Your task to perform on an android device: Add dell xps to the cart on target Image 0: 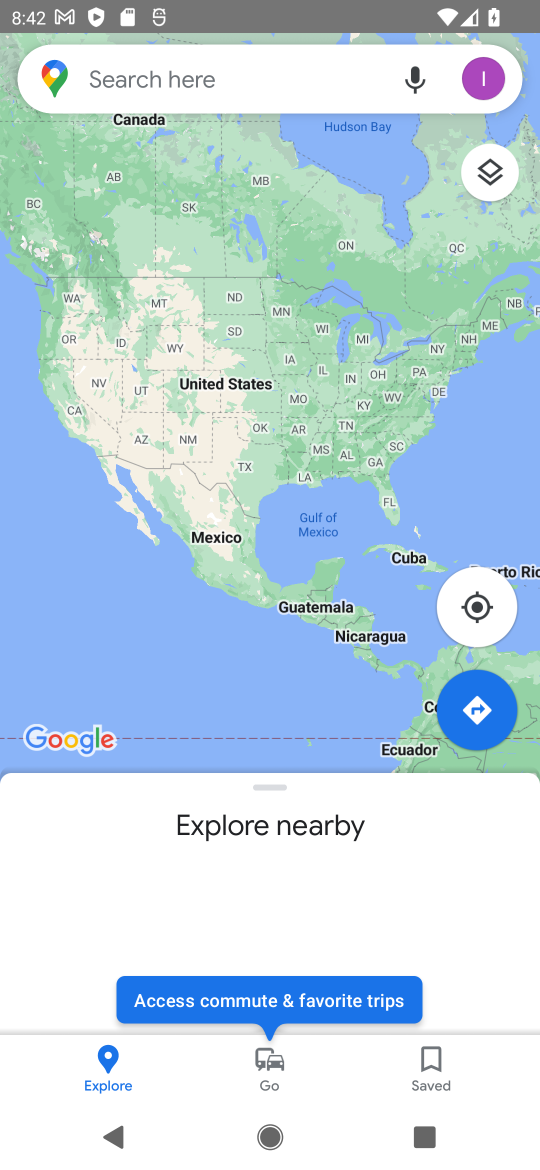
Step 0: press home button
Your task to perform on an android device: Add dell xps to the cart on target Image 1: 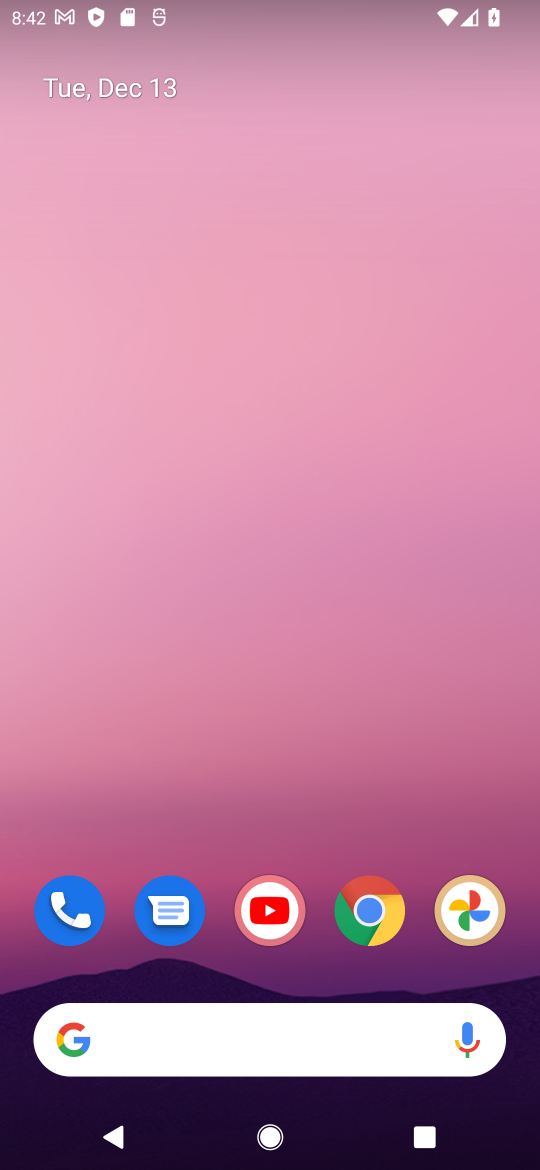
Step 1: drag from (223, 846) to (223, 288)
Your task to perform on an android device: Add dell xps to the cart on target Image 2: 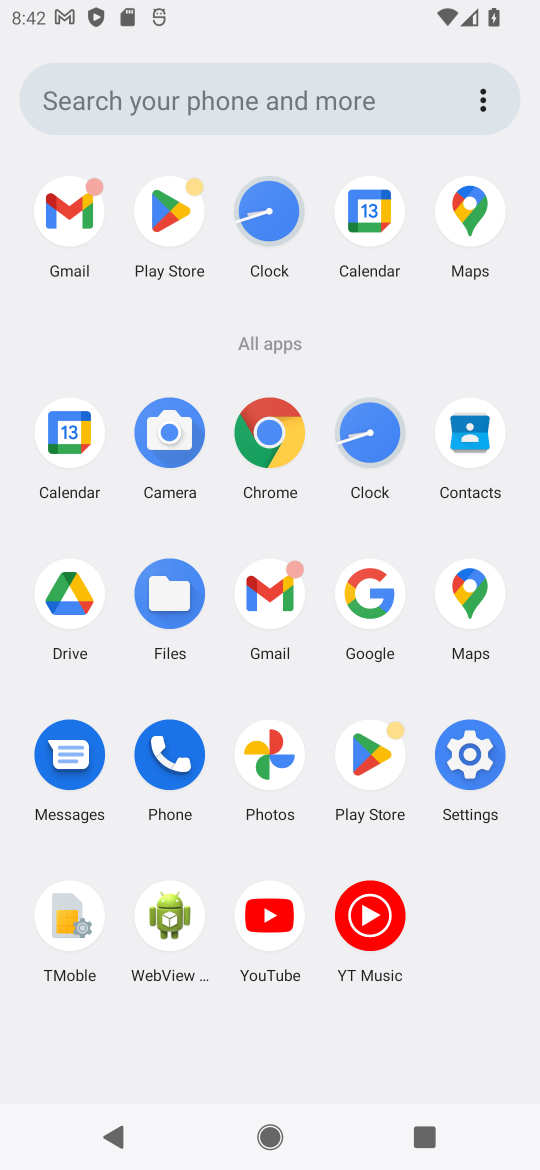
Step 2: click (374, 581)
Your task to perform on an android device: Add dell xps to the cart on target Image 3: 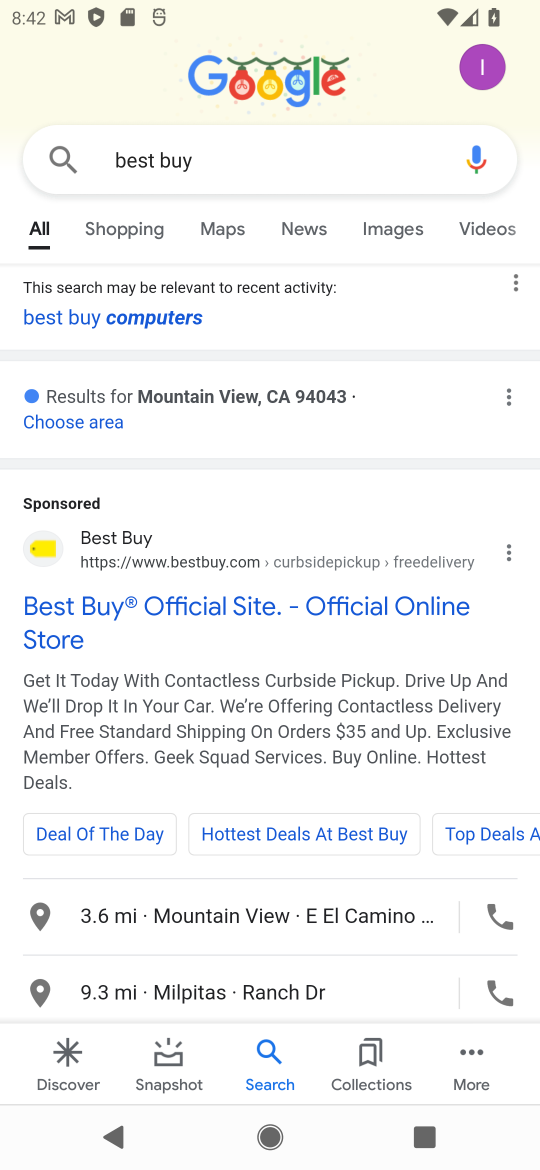
Step 3: click (141, 157)
Your task to perform on an android device: Add dell xps to the cart on target Image 4: 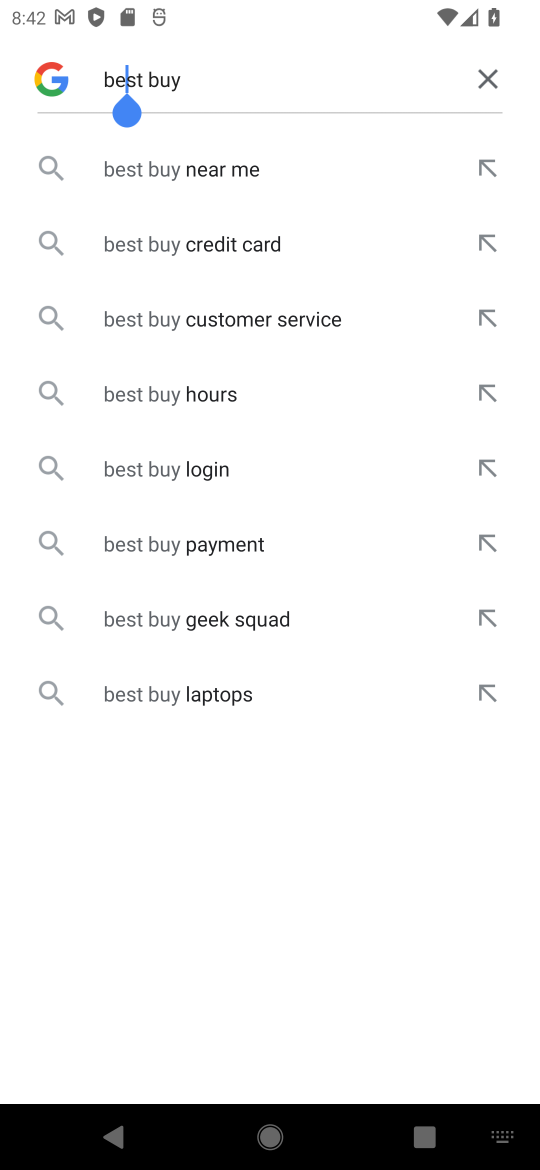
Step 4: click (491, 76)
Your task to perform on an android device: Add dell xps to the cart on target Image 5: 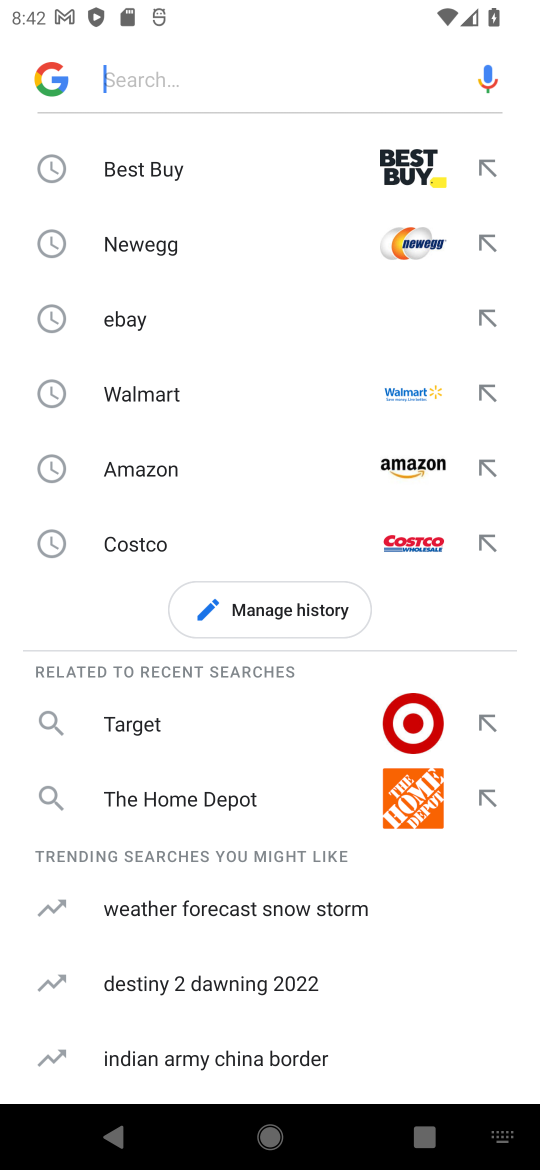
Step 5: click (165, 724)
Your task to perform on an android device: Add dell xps to the cart on target Image 6: 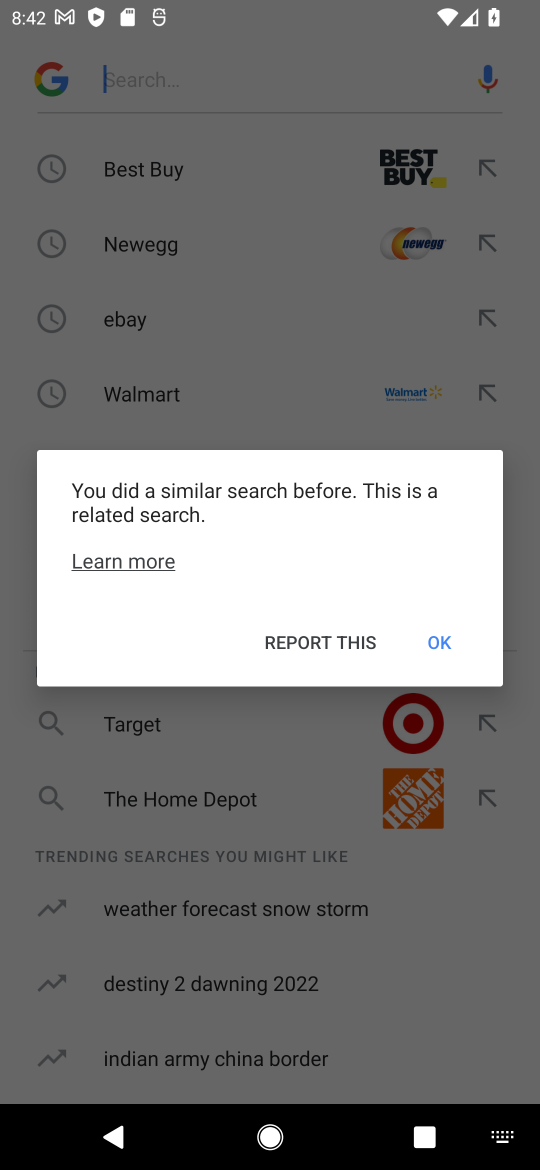
Step 6: click (432, 652)
Your task to perform on an android device: Add dell xps to the cart on target Image 7: 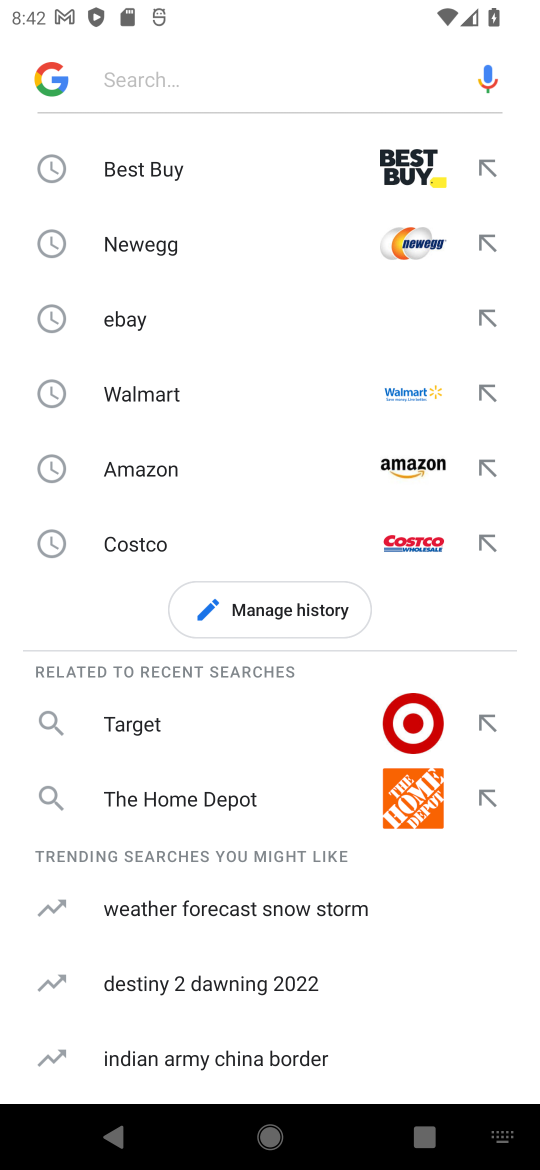
Step 7: click (143, 727)
Your task to perform on an android device: Add dell xps to the cart on target Image 8: 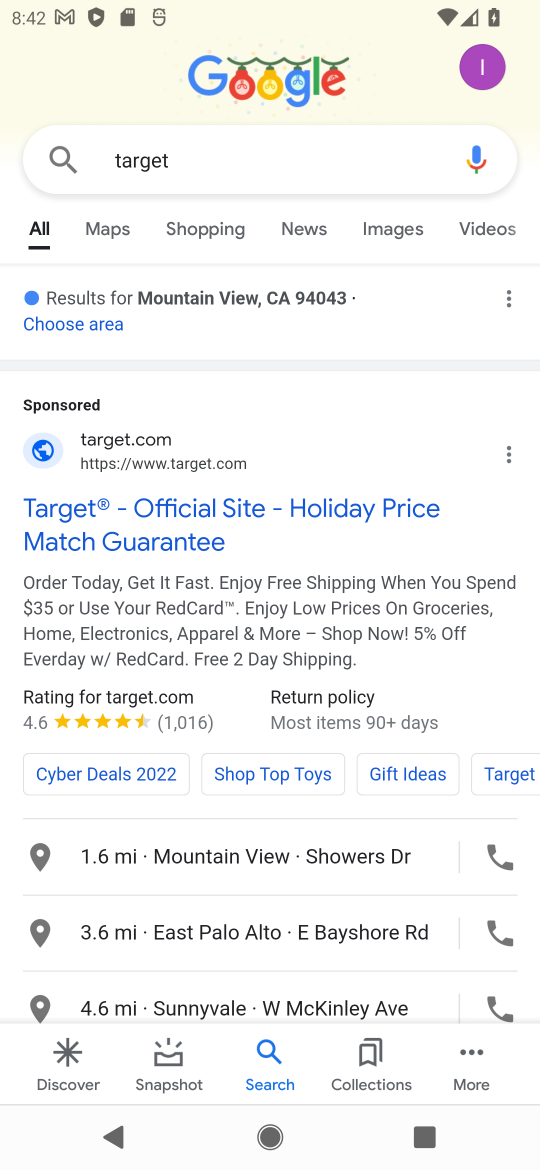
Step 8: click (156, 527)
Your task to perform on an android device: Add dell xps to the cart on target Image 9: 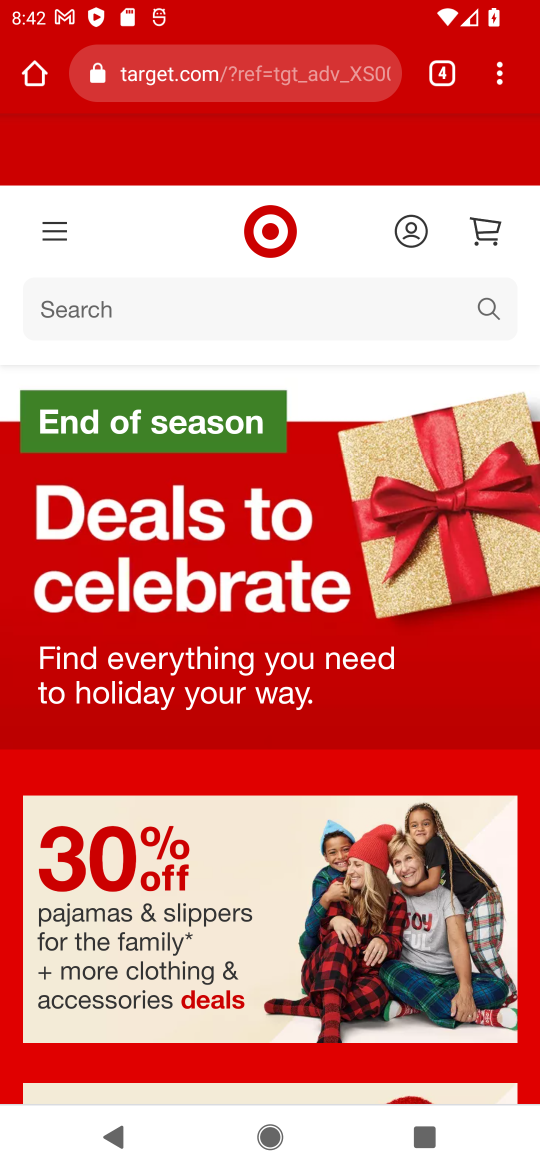
Step 9: click (138, 307)
Your task to perform on an android device: Add dell xps to the cart on target Image 10: 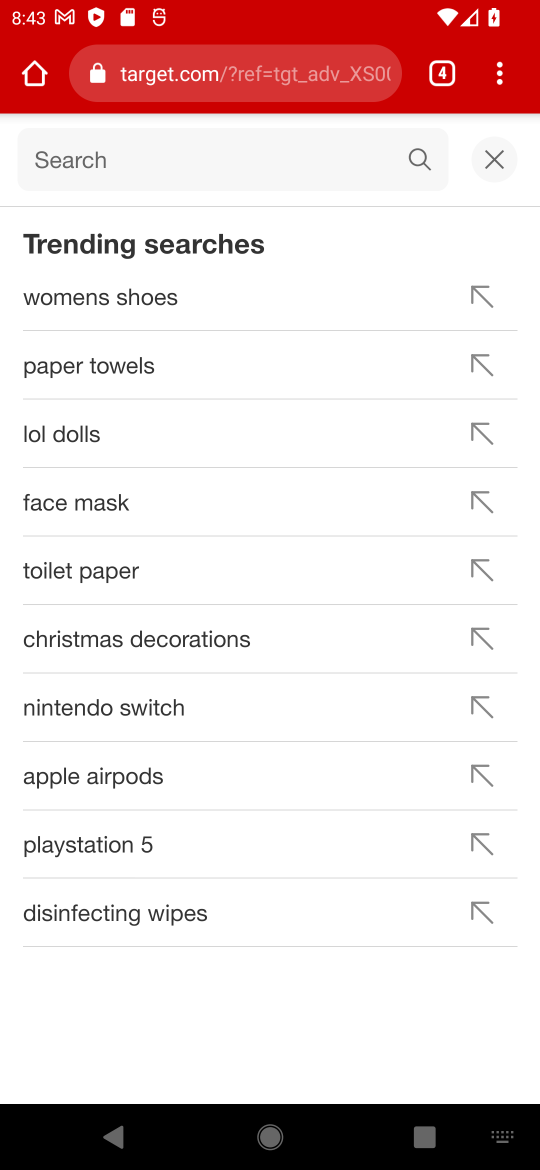
Step 10: type "dell xps"
Your task to perform on an android device: Add dell xps to the cart on target Image 11: 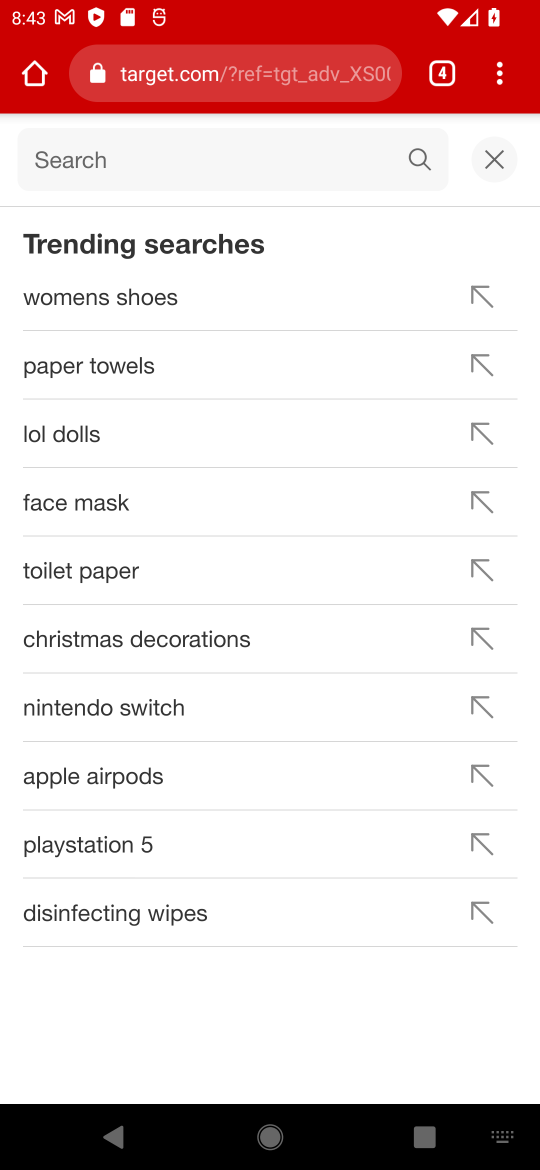
Step 11: click (419, 160)
Your task to perform on an android device: Add dell xps to the cart on target Image 12: 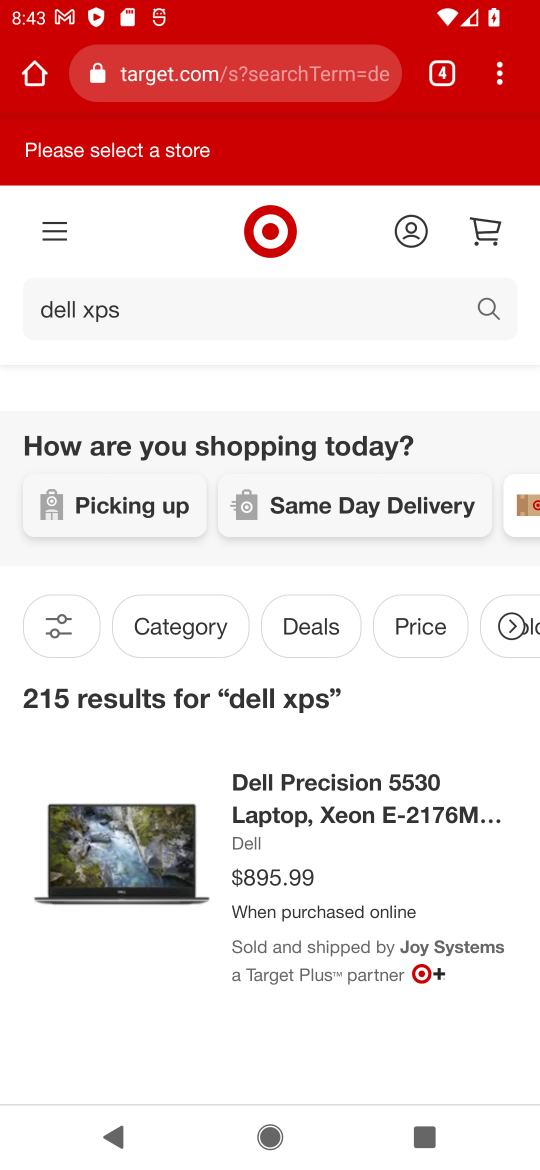
Step 12: click (307, 799)
Your task to perform on an android device: Add dell xps to the cart on target Image 13: 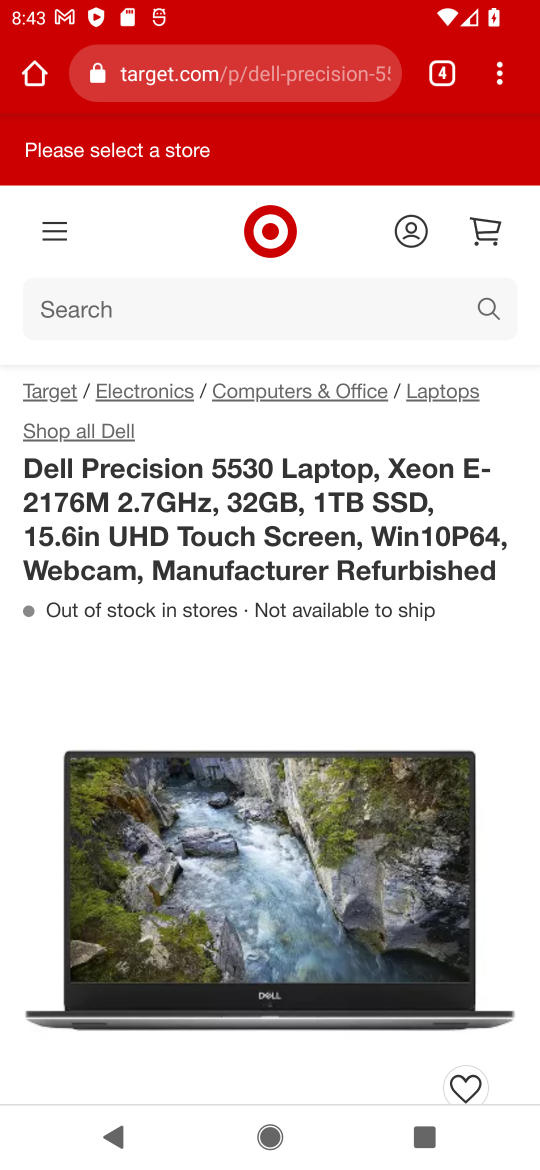
Step 13: drag from (486, 956) to (427, 473)
Your task to perform on an android device: Add dell xps to the cart on target Image 14: 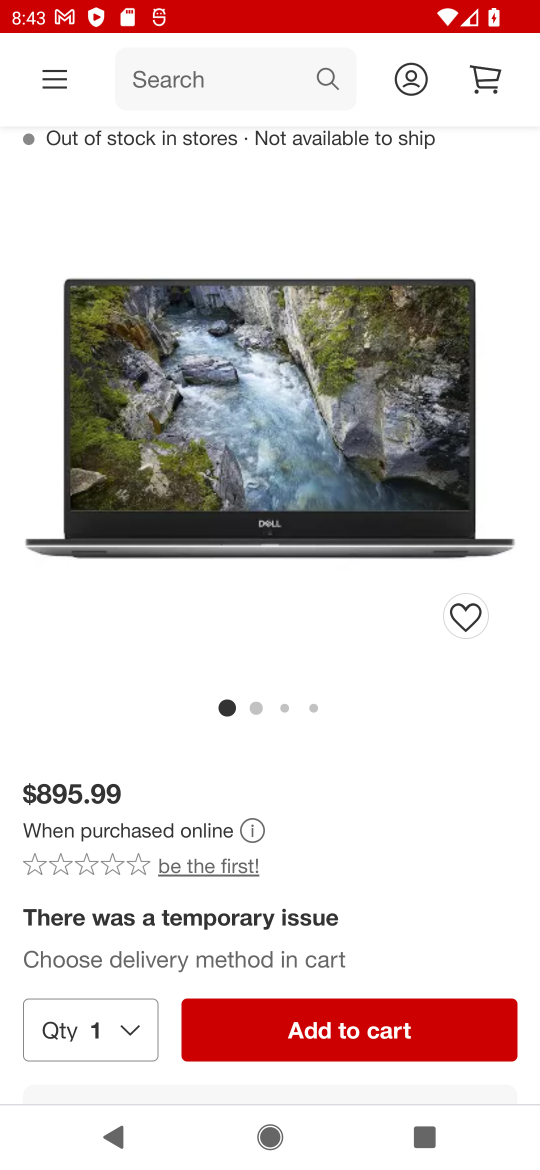
Step 14: click (379, 1036)
Your task to perform on an android device: Add dell xps to the cart on target Image 15: 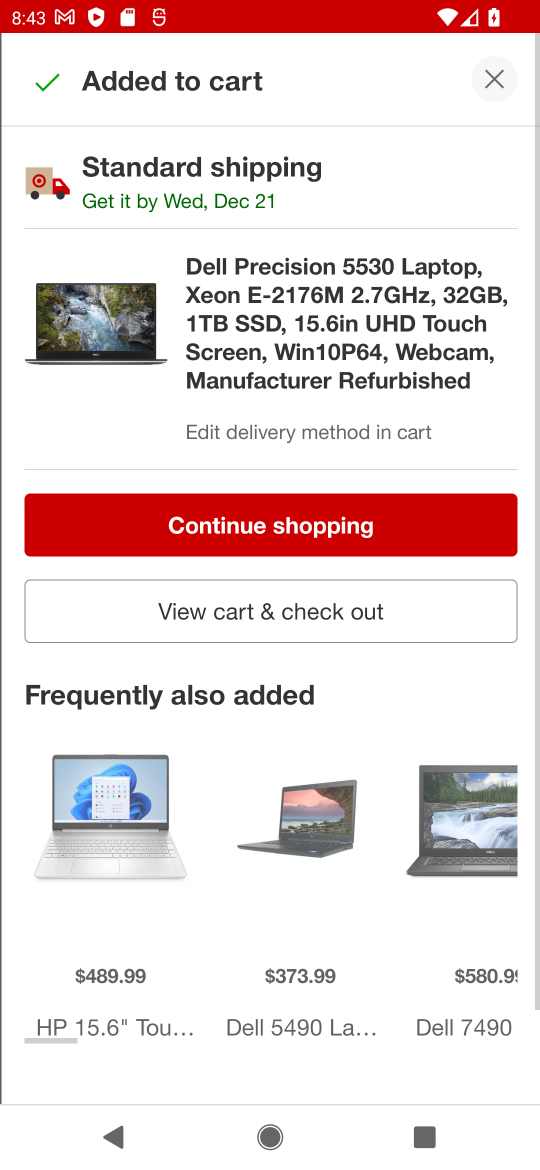
Step 15: task complete